Your task to perform on an android device: toggle data saver in the chrome app Image 0: 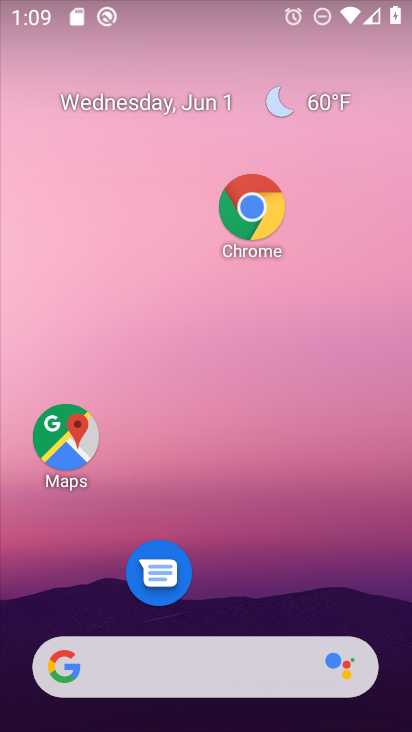
Step 0: click (245, 216)
Your task to perform on an android device: toggle data saver in the chrome app Image 1: 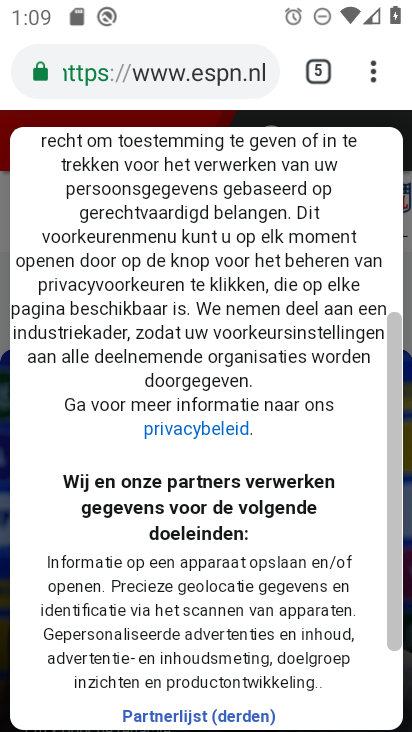
Step 1: click (361, 69)
Your task to perform on an android device: toggle data saver in the chrome app Image 2: 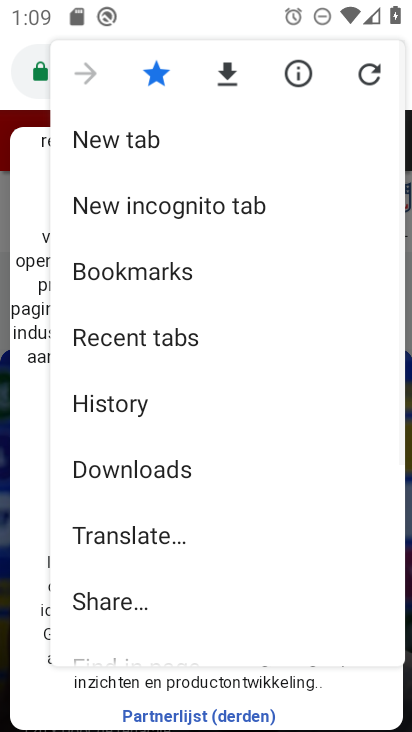
Step 2: drag from (191, 573) to (197, 265)
Your task to perform on an android device: toggle data saver in the chrome app Image 3: 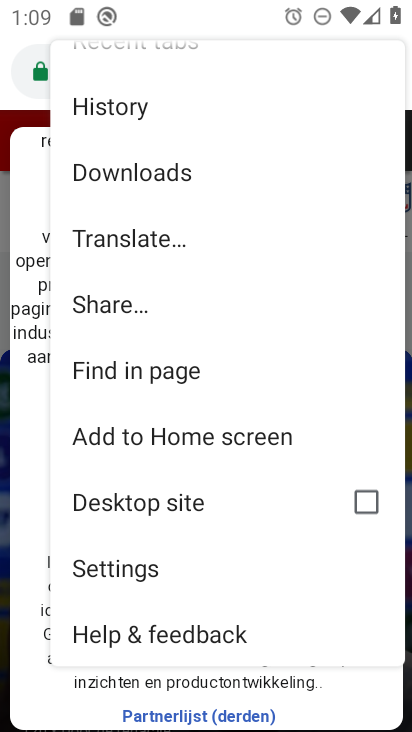
Step 3: click (164, 575)
Your task to perform on an android device: toggle data saver in the chrome app Image 4: 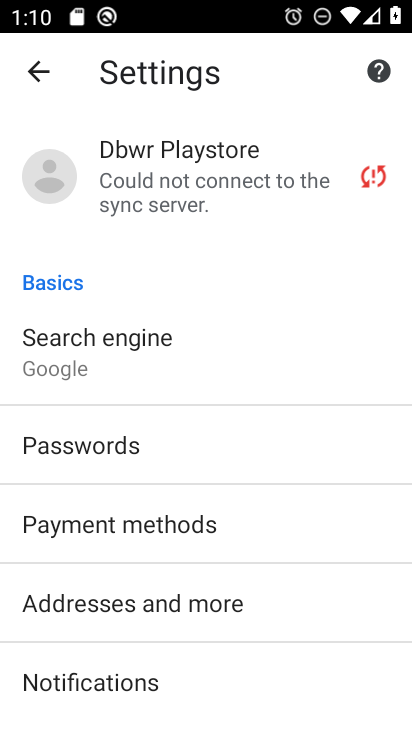
Step 4: drag from (179, 634) to (180, 250)
Your task to perform on an android device: toggle data saver in the chrome app Image 5: 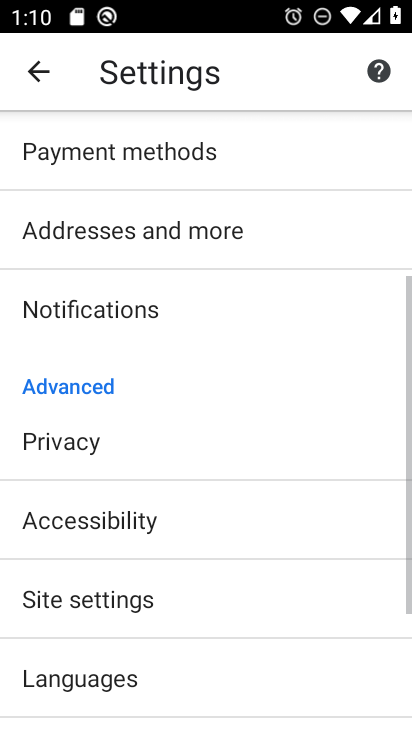
Step 5: drag from (152, 578) to (185, 301)
Your task to perform on an android device: toggle data saver in the chrome app Image 6: 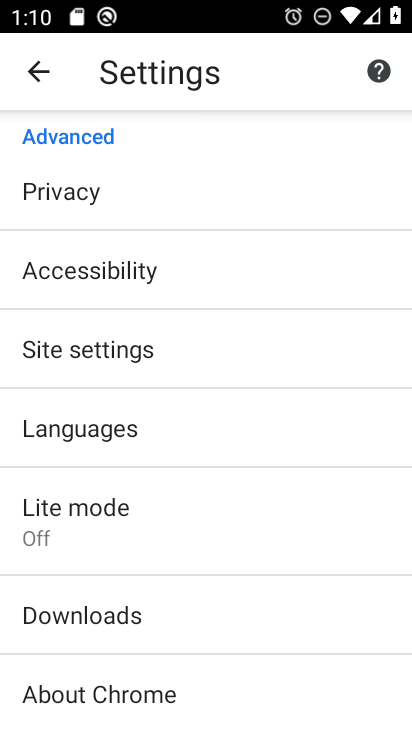
Step 6: drag from (129, 619) to (142, 402)
Your task to perform on an android device: toggle data saver in the chrome app Image 7: 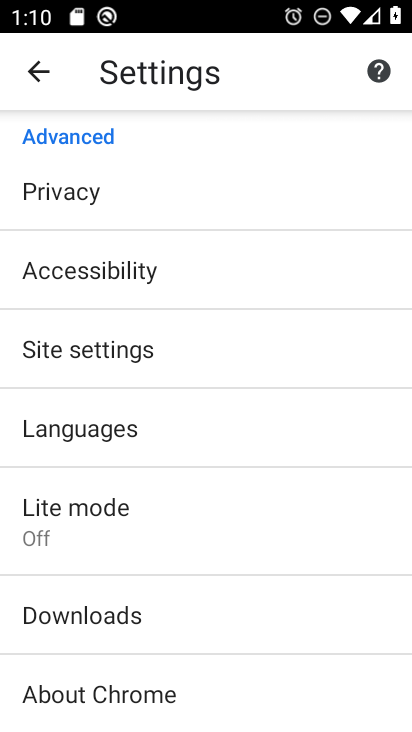
Step 7: click (122, 510)
Your task to perform on an android device: toggle data saver in the chrome app Image 8: 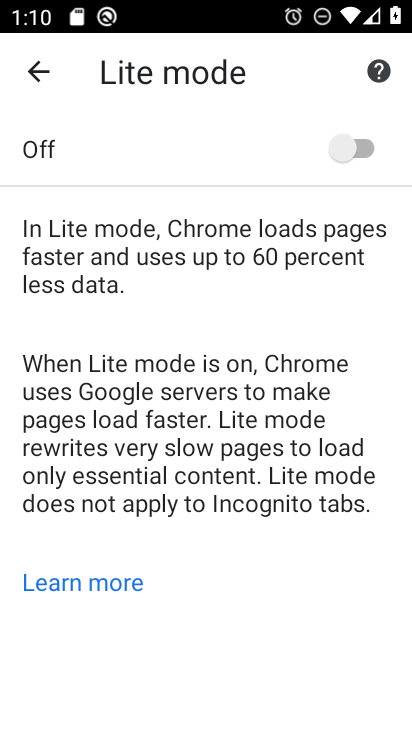
Step 8: click (358, 157)
Your task to perform on an android device: toggle data saver in the chrome app Image 9: 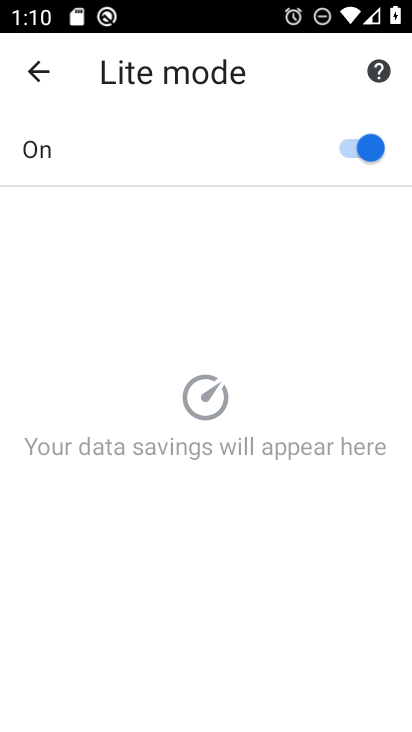
Step 9: task complete